Your task to perform on an android device: When is my next appointment? Image 0: 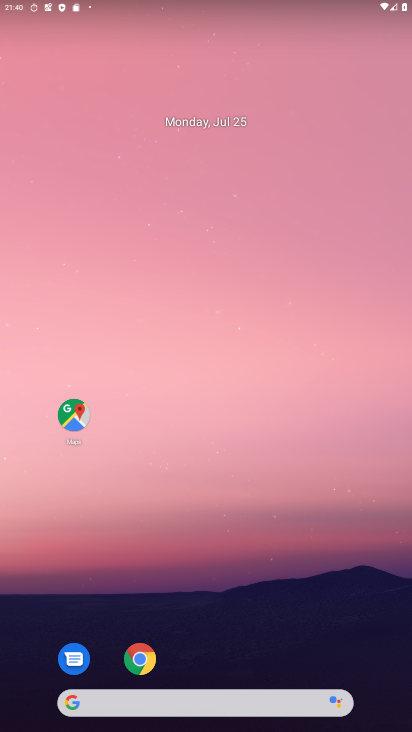
Step 0: drag from (207, 652) to (227, 206)
Your task to perform on an android device: When is my next appointment? Image 1: 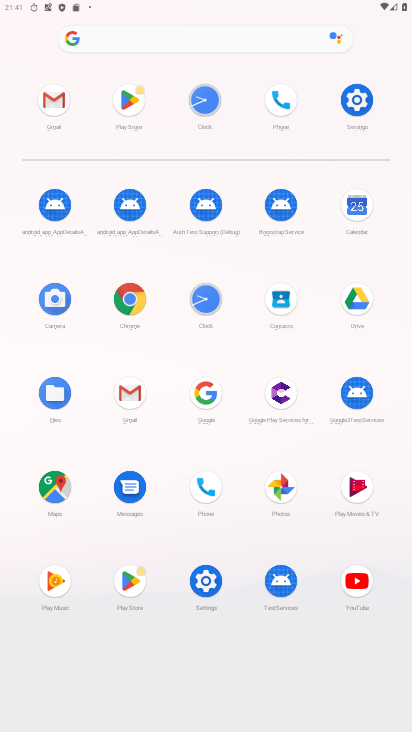
Step 1: click (360, 217)
Your task to perform on an android device: When is my next appointment? Image 2: 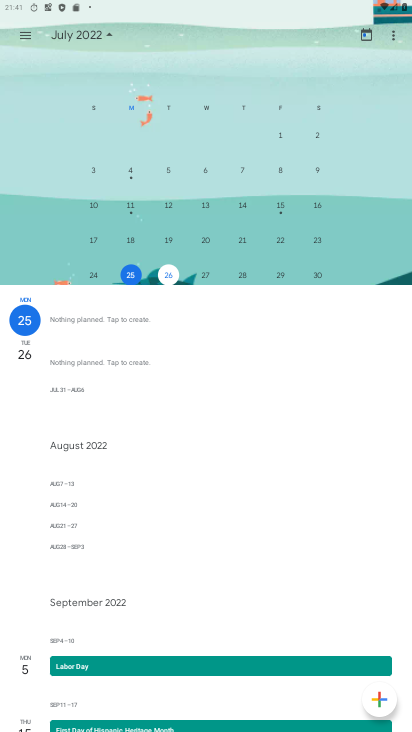
Step 2: task complete